Your task to perform on an android device: open app "Indeed Job Search" (install if not already installed) and enter user name: "quixotic@inbox.com" and password: "microphones" Image 0: 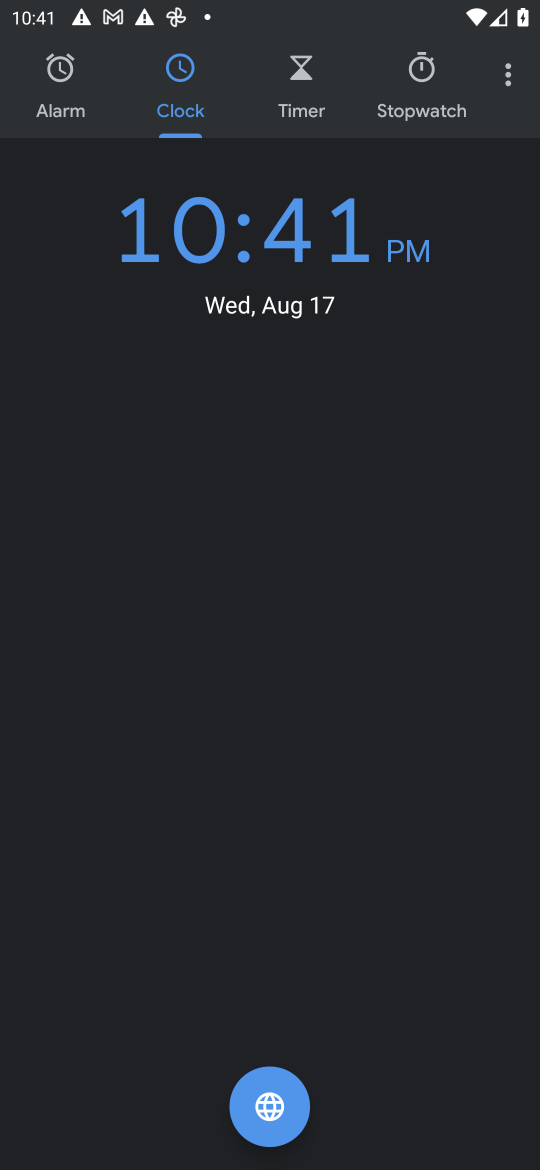
Step 0: press home button
Your task to perform on an android device: open app "Indeed Job Search" (install if not already installed) and enter user name: "quixotic@inbox.com" and password: "microphones" Image 1: 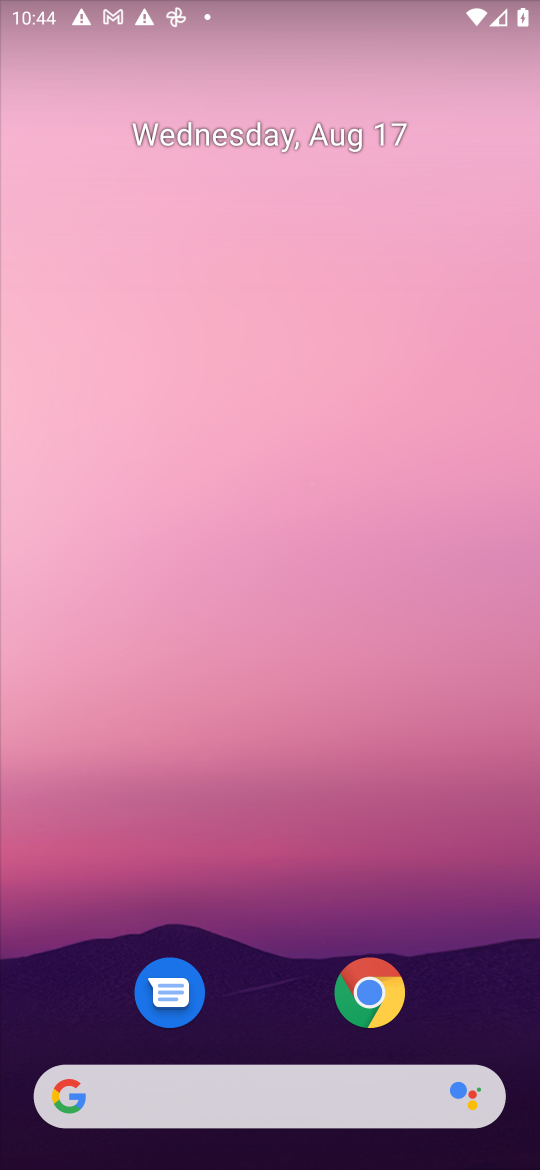
Step 1: drag from (507, 979) to (281, 49)
Your task to perform on an android device: open app "Indeed Job Search" (install if not already installed) and enter user name: "quixotic@inbox.com" and password: "microphones" Image 2: 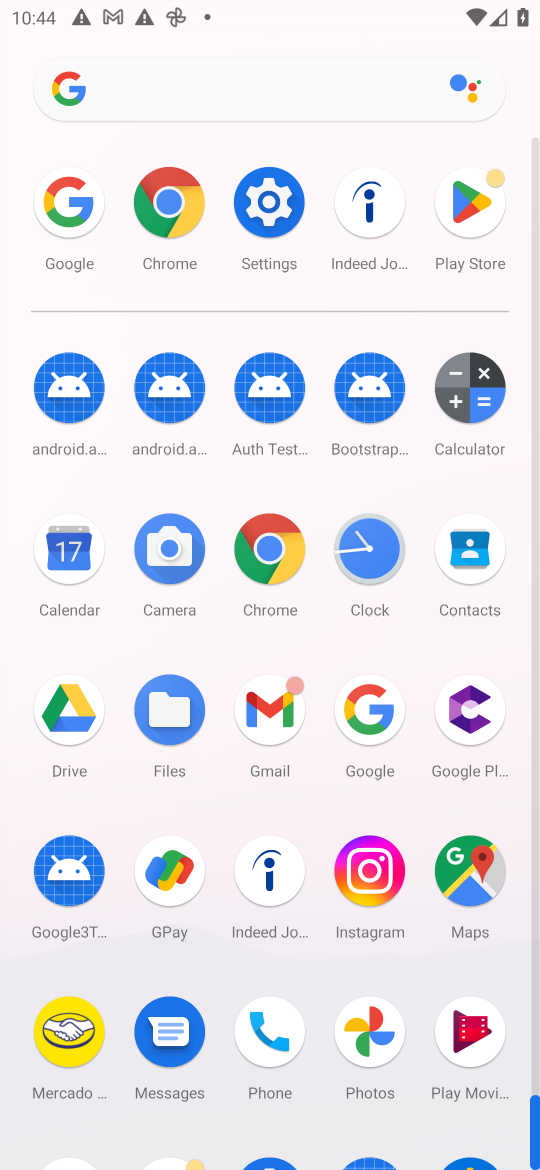
Step 2: click (461, 203)
Your task to perform on an android device: open app "Indeed Job Search" (install if not already installed) and enter user name: "quixotic@inbox.com" and password: "microphones" Image 3: 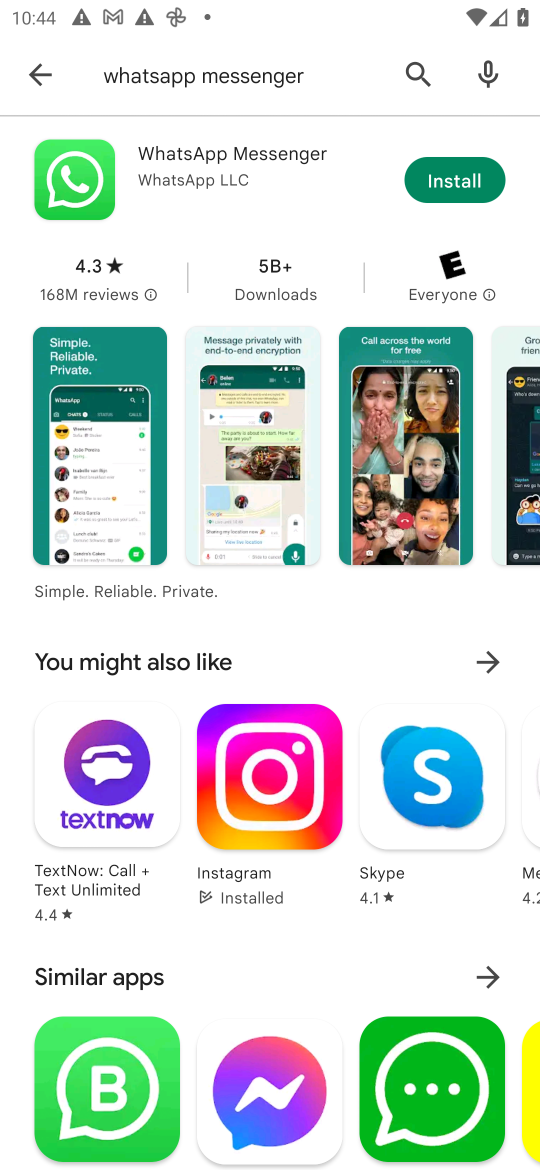
Step 3: press back button
Your task to perform on an android device: open app "Indeed Job Search" (install if not already installed) and enter user name: "quixotic@inbox.com" and password: "microphones" Image 4: 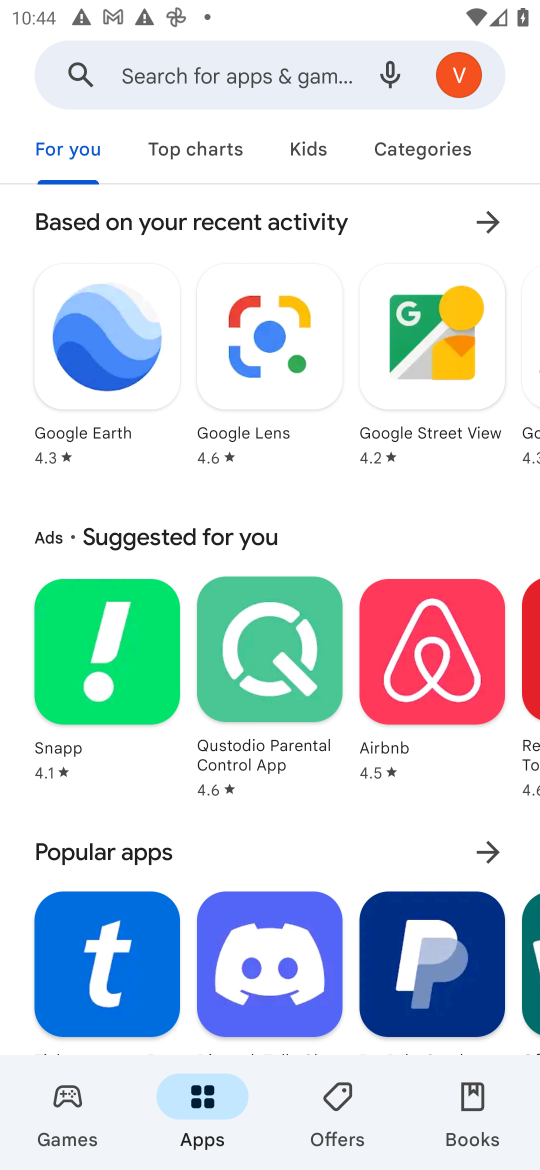
Step 4: click (169, 73)
Your task to perform on an android device: open app "Indeed Job Search" (install if not already installed) and enter user name: "quixotic@inbox.com" and password: "microphones" Image 5: 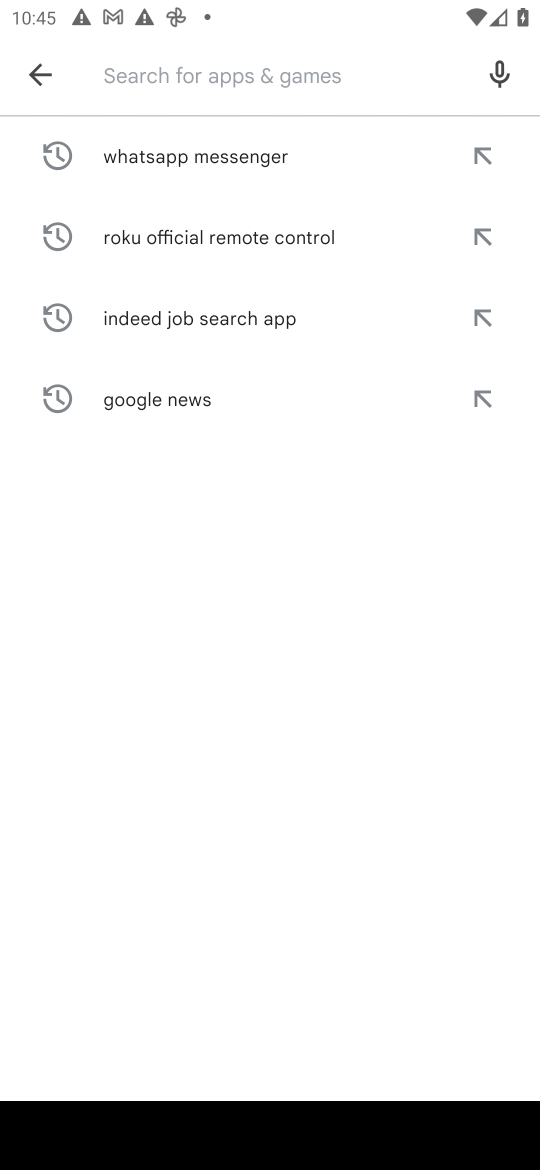
Step 5: type "Indeed Job Search"
Your task to perform on an android device: open app "Indeed Job Search" (install if not already installed) and enter user name: "quixotic@inbox.com" and password: "microphones" Image 6: 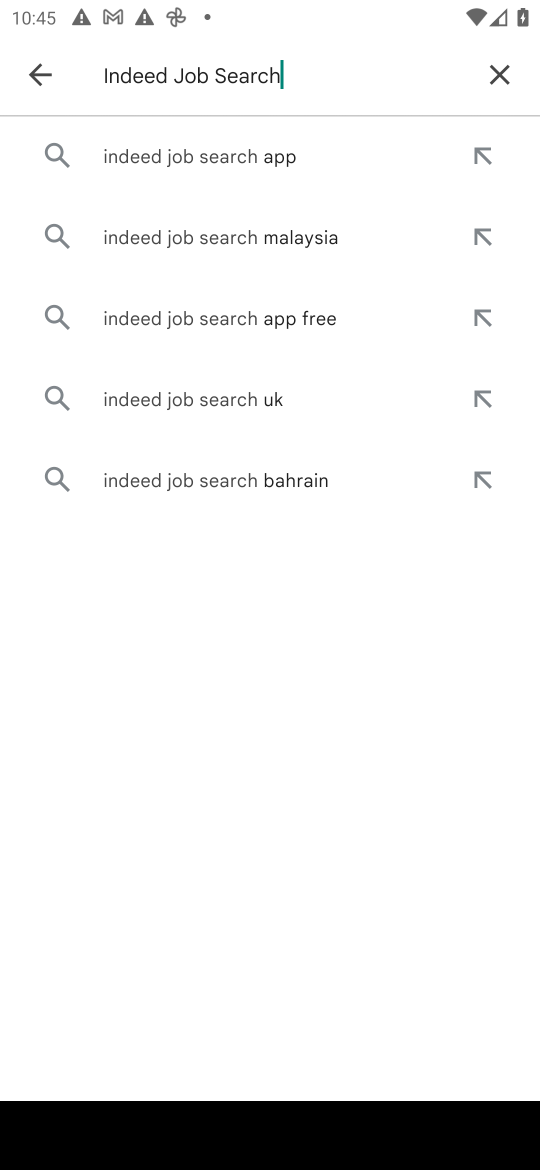
Step 6: click (183, 153)
Your task to perform on an android device: open app "Indeed Job Search" (install if not already installed) and enter user name: "quixotic@inbox.com" and password: "microphones" Image 7: 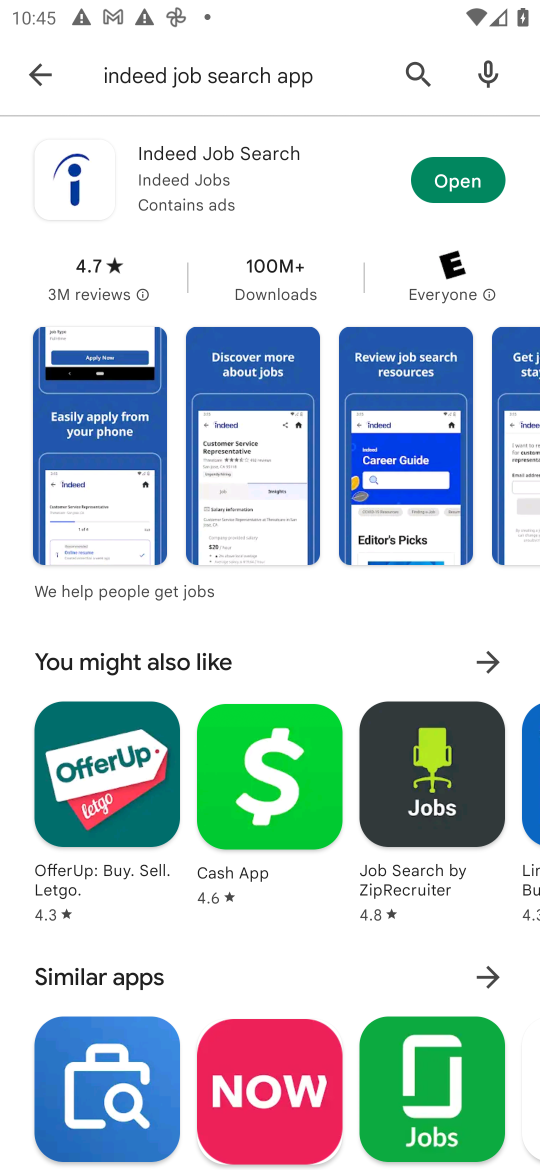
Step 7: task complete